Your task to perform on an android device: open app "Google Home" Image 0: 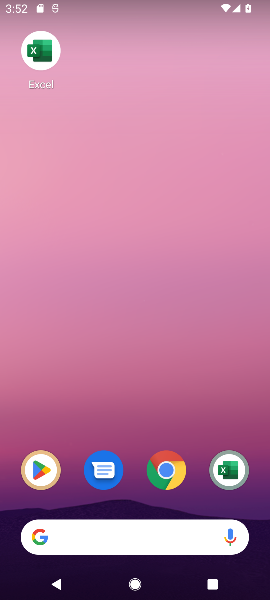
Step 0: drag from (92, 581) to (176, 46)
Your task to perform on an android device: open app "Google Home" Image 1: 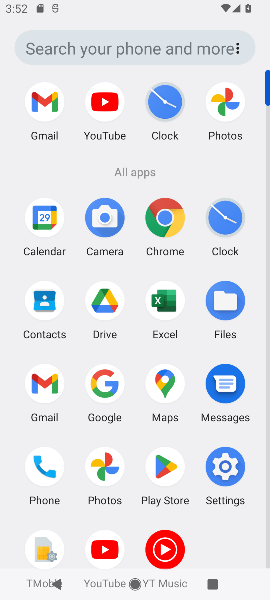
Step 1: click (167, 466)
Your task to perform on an android device: open app "Google Home" Image 2: 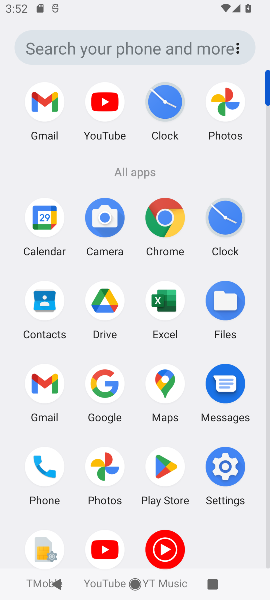
Step 2: click (167, 466)
Your task to perform on an android device: open app "Google Home" Image 3: 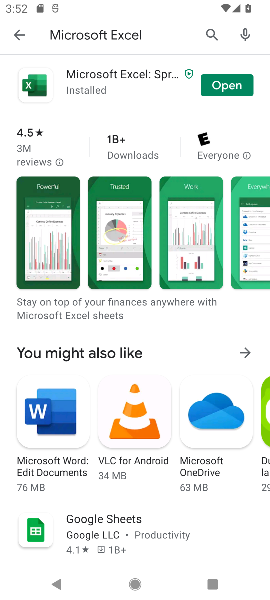
Step 3: click (211, 35)
Your task to perform on an android device: open app "Google Home" Image 4: 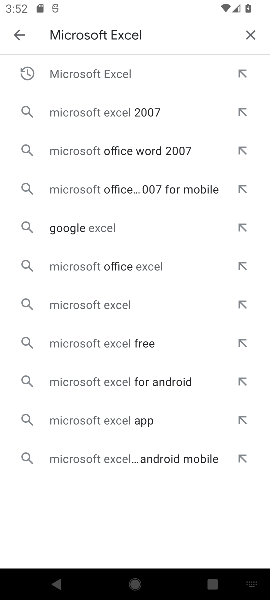
Step 4: click (243, 31)
Your task to perform on an android device: open app "Google Home" Image 5: 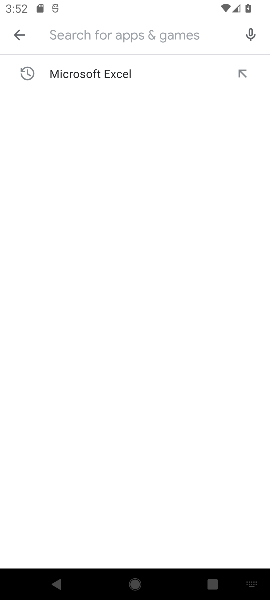
Step 5: type "Google Home"
Your task to perform on an android device: open app "Google Home" Image 6: 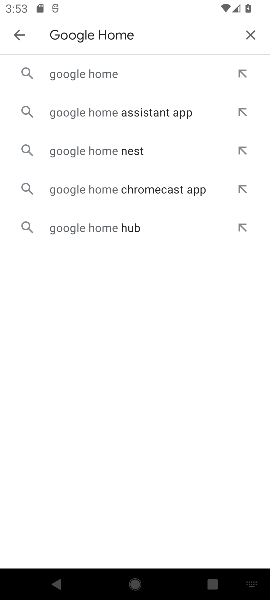
Step 6: click (135, 75)
Your task to perform on an android device: open app "Google Home" Image 7: 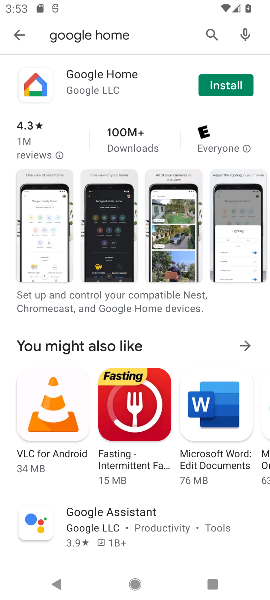
Step 7: task complete